Your task to perform on an android device: empty trash in google photos Image 0: 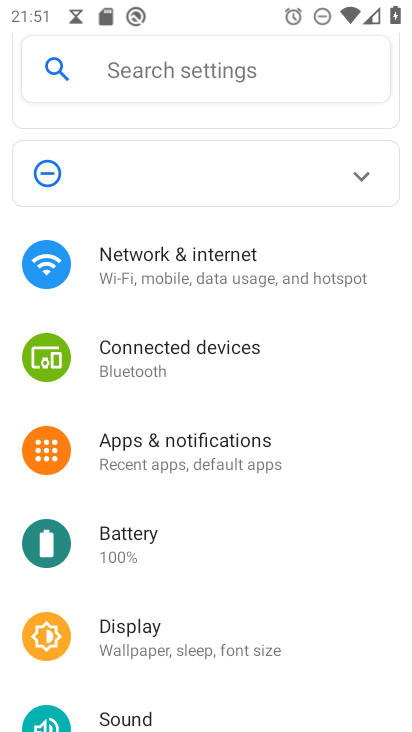
Step 0: press home button
Your task to perform on an android device: empty trash in google photos Image 1: 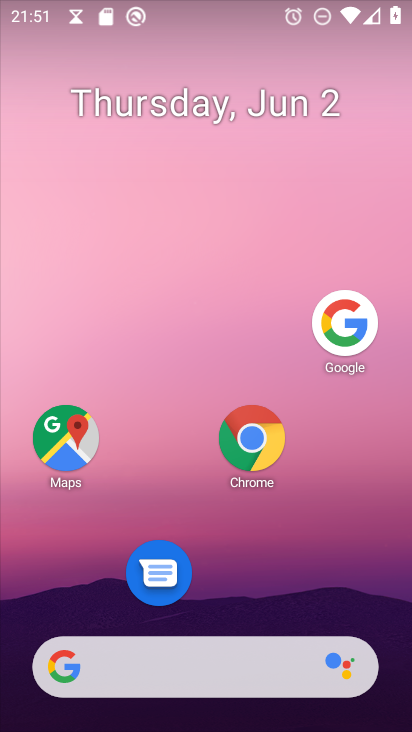
Step 1: drag from (174, 678) to (319, 87)
Your task to perform on an android device: empty trash in google photos Image 2: 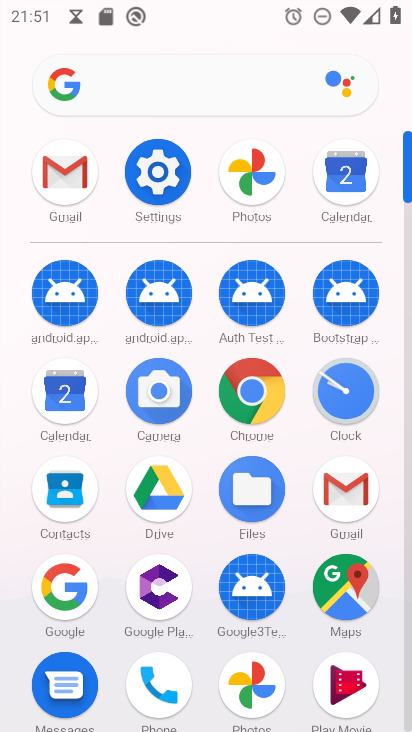
Step 2: click (244, 682)
Your task to perform on an android device: empty trash in google photos Image 3: 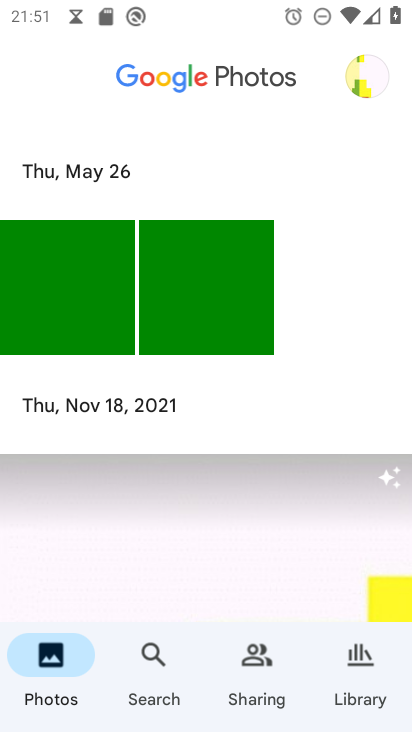
Step 3: click (365, 674)
Your task to perform on an android device: empty trash in google photos Image 4: 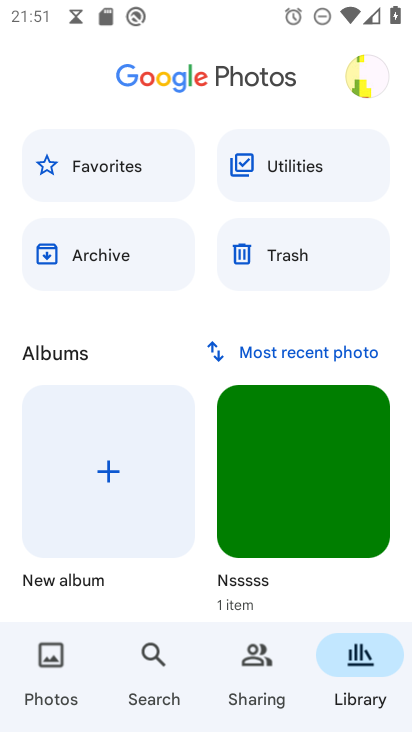
Step 4: click (300, 257)
Your task to perform on an android device: empty trash in google photos Image 5: 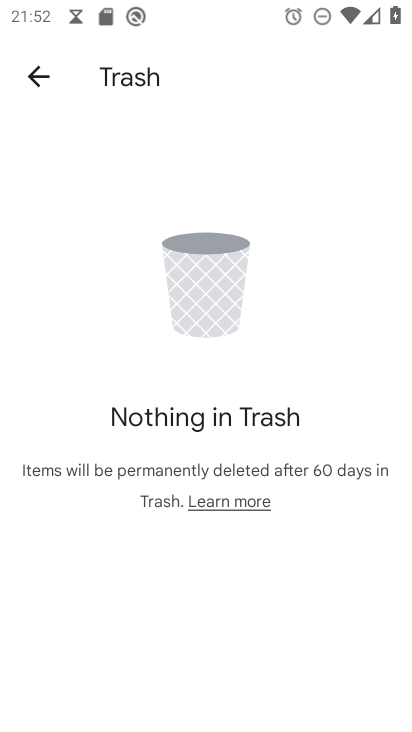
Step 5: task complete